Your task to perform on an android device: Open privacy settings Image 0: 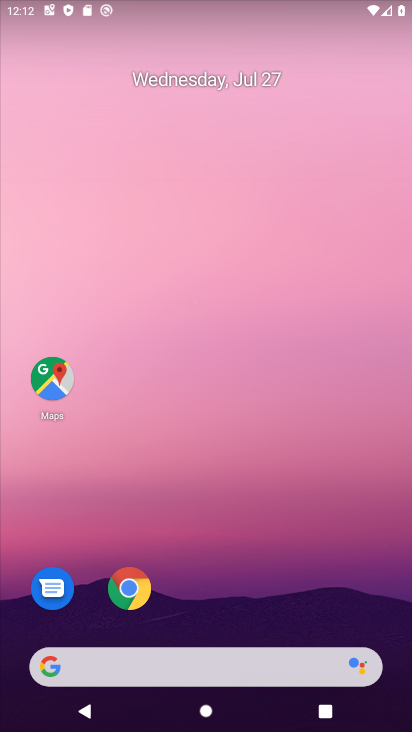
Step 0: drag from (49, 692) to (127, 70)
Your task to perform on an android device: Open privacy settings Image 1: 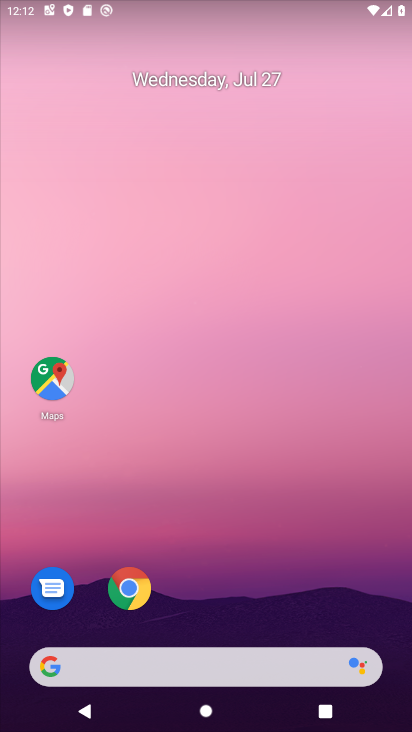
Step 1: drag from (27, 696) to (121, 87)
Your task to perform on an android device: Open privacy settings Image 2: 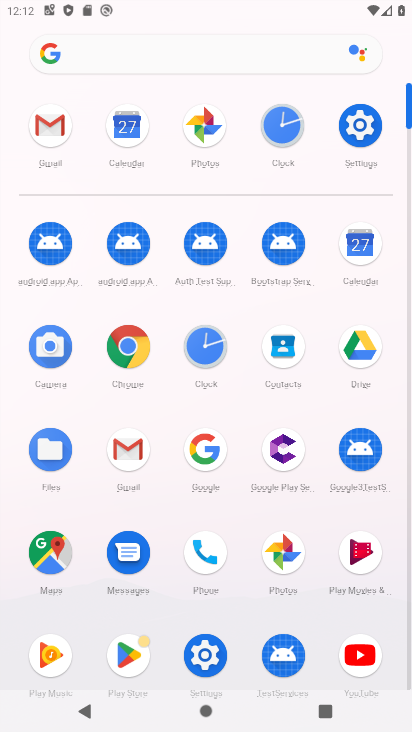
Step 2: click (212, 647)
Your task to perform on an android device: Open privacy settings Image 3: 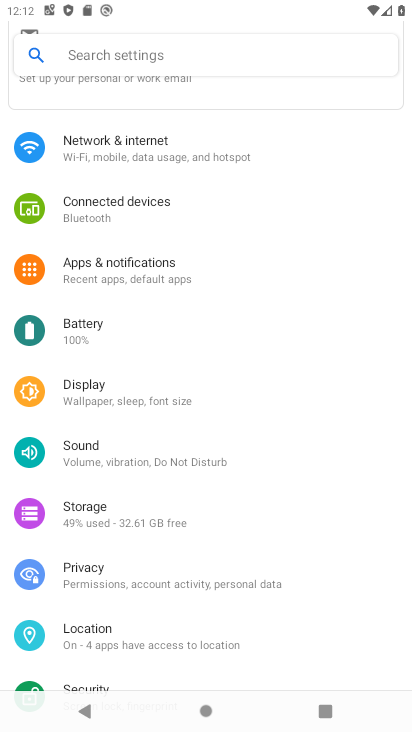
Step 3: click (92, 567)
Your task to perform on an android device: Open privacy settings Image 4: 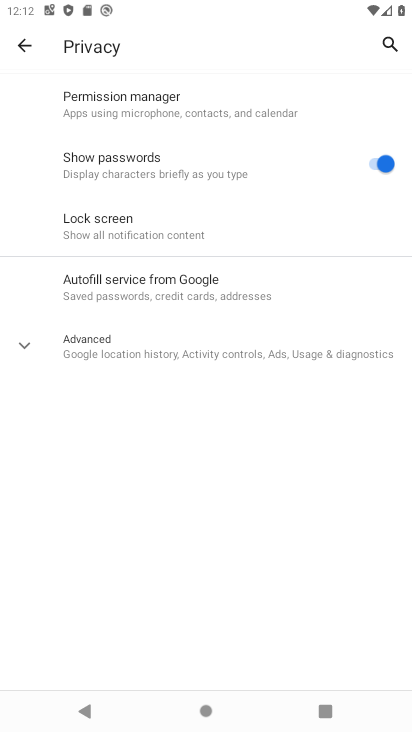
Step 4: task complete